Your task to perform on an android device: turn on javascript in the chrome app Image 0: 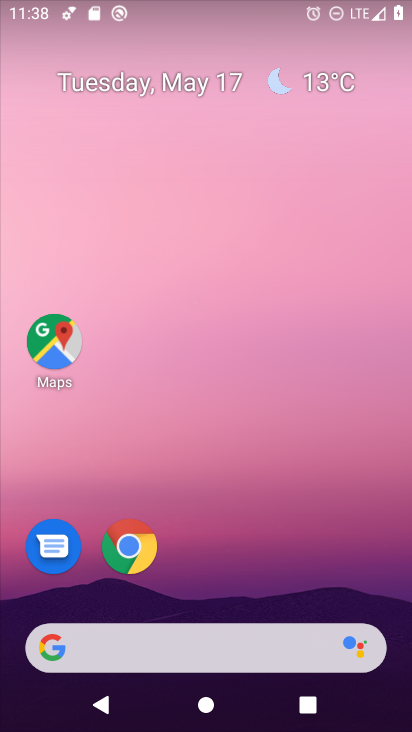
Step 0: click (132, 565)
Your task to perform on an android device: turn on javascript in the chrome app Image 1: 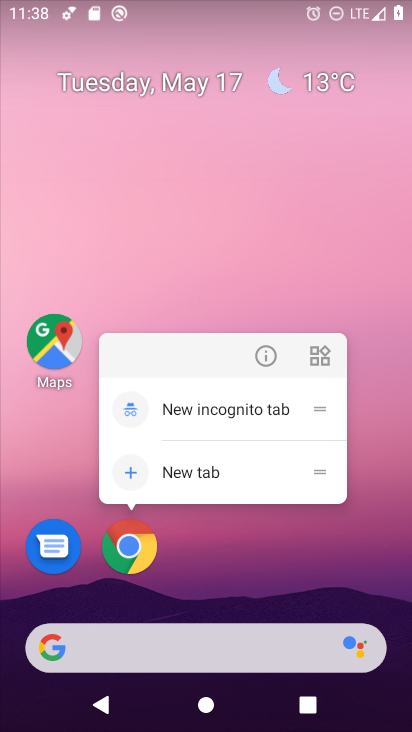
Step 1: click (136, 554)
Your task to perform on an android device: turn on javascript in the chrome app Image 2: 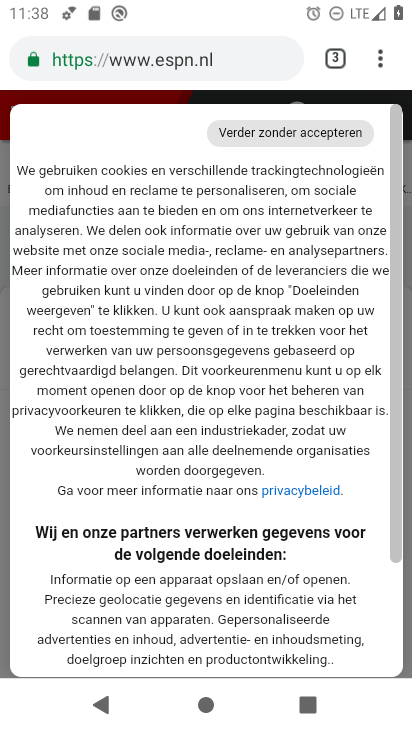
Step 2: click (383, 58)
Your task to perform on an android device: turn on javascript in the chrome app Image 3: 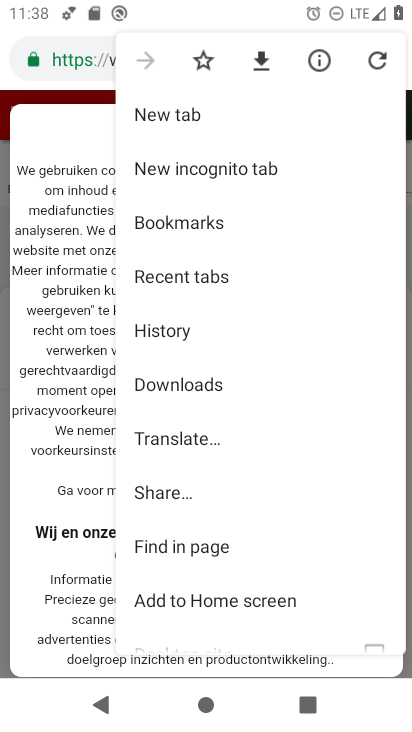
Step 3: drag from (263, 580) to (250, 314)
Your task to perform on an android device: turn on javascript in the chrome app Image 4: 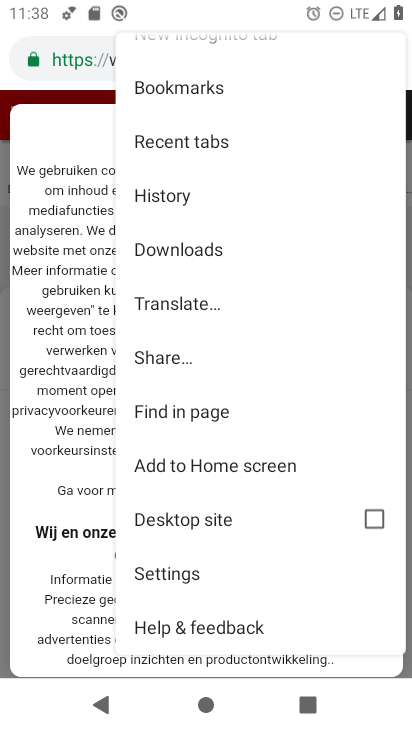
Step 4: click (166, 581)
Your task to perform on an android device: turn on javascript in the chrome app Image 5: 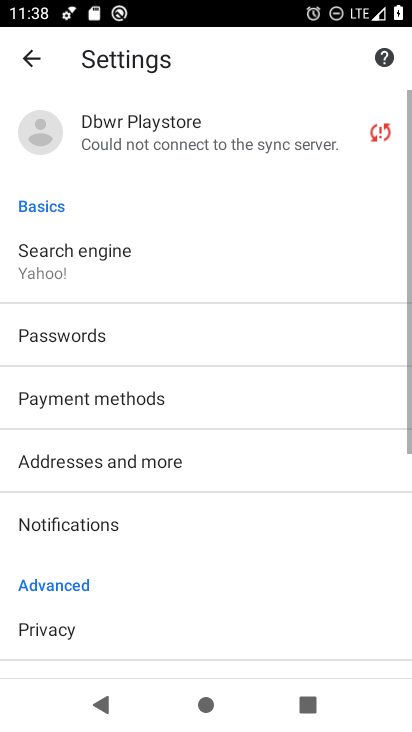
Step 5: drag from (166, 581) to (169, 331)
Your task to perform on an android device: turn on javascript in the chrome app Image 6: 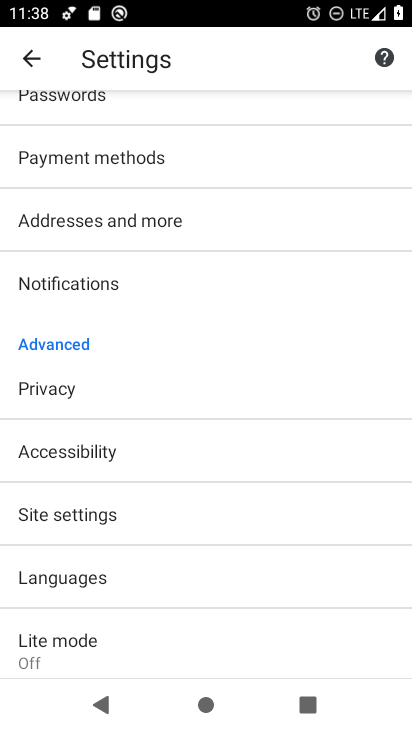
Step 6: click (122, 515)
Your task to perform on an android device: turn on javascript in the chrome app Image 7: 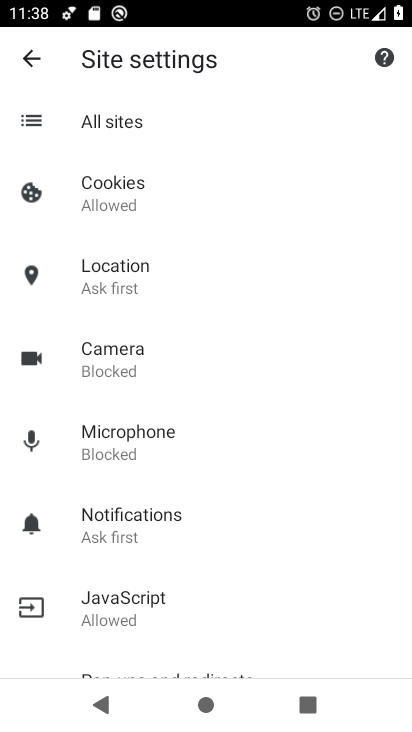
Step 7: drag from (187, 543) to (201, 364)
Your task to perform on an android device: turn on javascript in the chrome app Image 8: 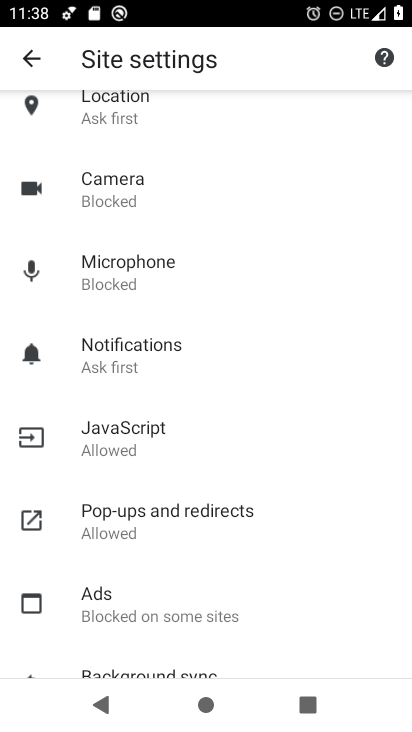
Step 8: click (143, 435)
Your task to perform on an android device: turn on javascript in the chrome app Image 9: 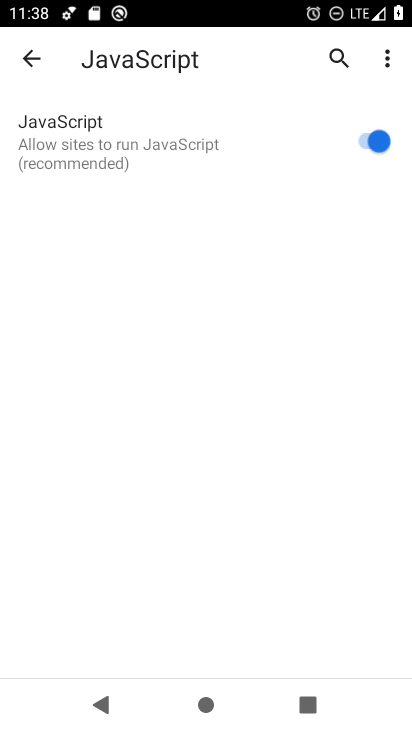
Step 9: task complete